Your task to perform on an android device: Show me popular videos on Youtube Image 0: 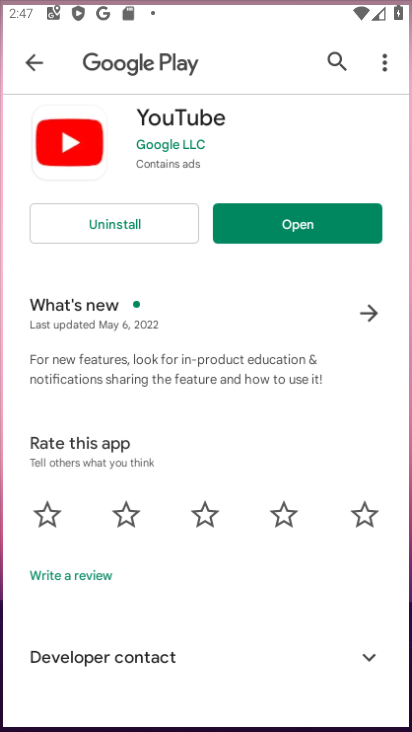
Step 0: drag from (206, 657) to (225, 309)
Your task to perform on an android device: Show me popular videos on Youtube Image 1: 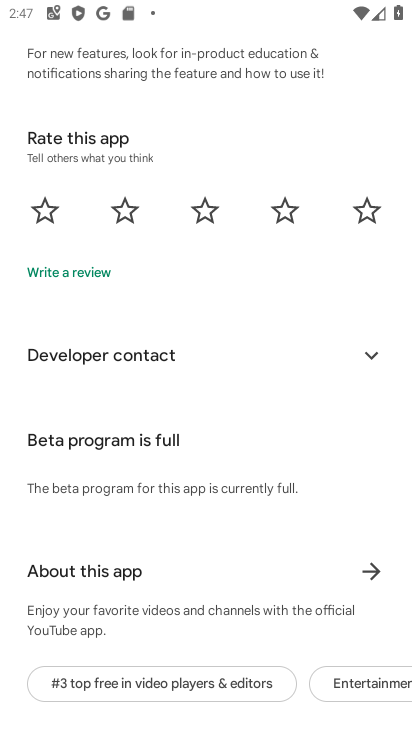
Step 1: drag from (196, 150) to (217, 731)
Your task to perform on an android device: Show me popular videos on Youtube Image 2: 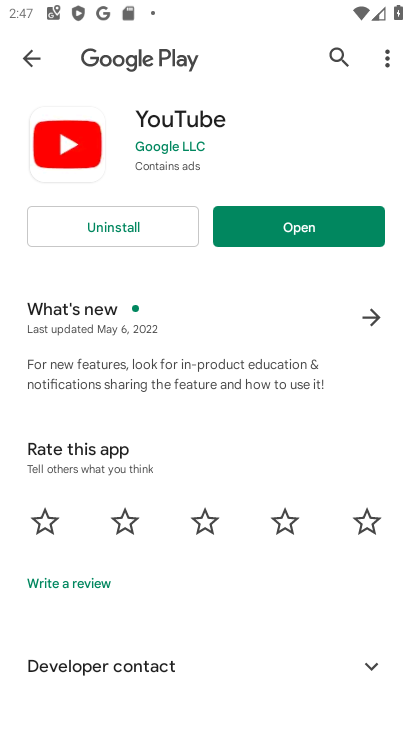
Step 2: click (270, 216)
Your task to perform on an android device: Show me popular videos on Youtube Image 3: 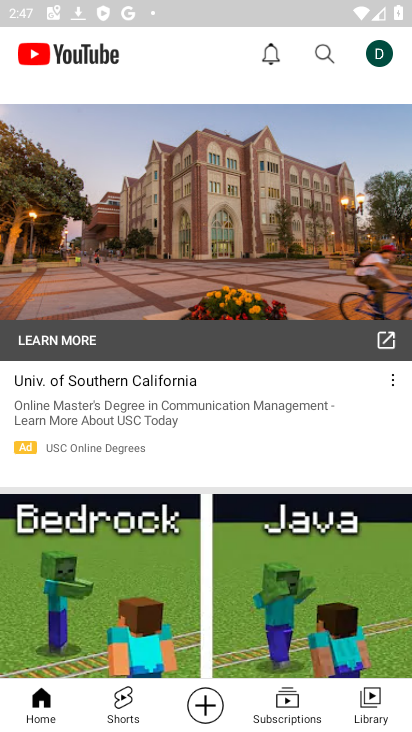
Step 3: task complete